Your task to perform on an android device: Show the shopping cart on target.com. Add usb-c to usb-a to the cart on target.com Image 0: 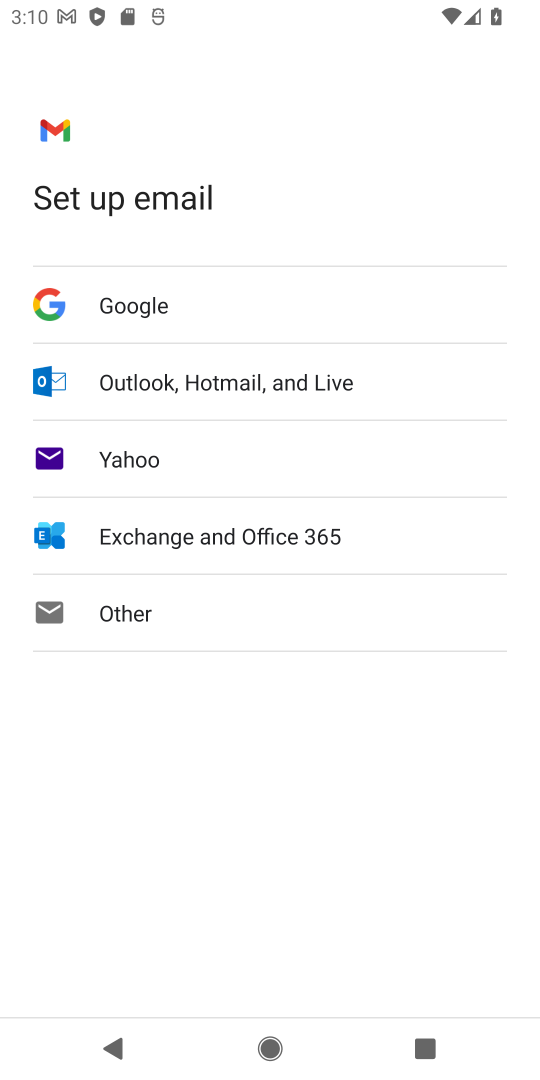
Step 0: press home button
Your task to perform on an android device: Show the shopping cart on target.com. Add usb-c to usb-a to the cart on target.com Image 1: 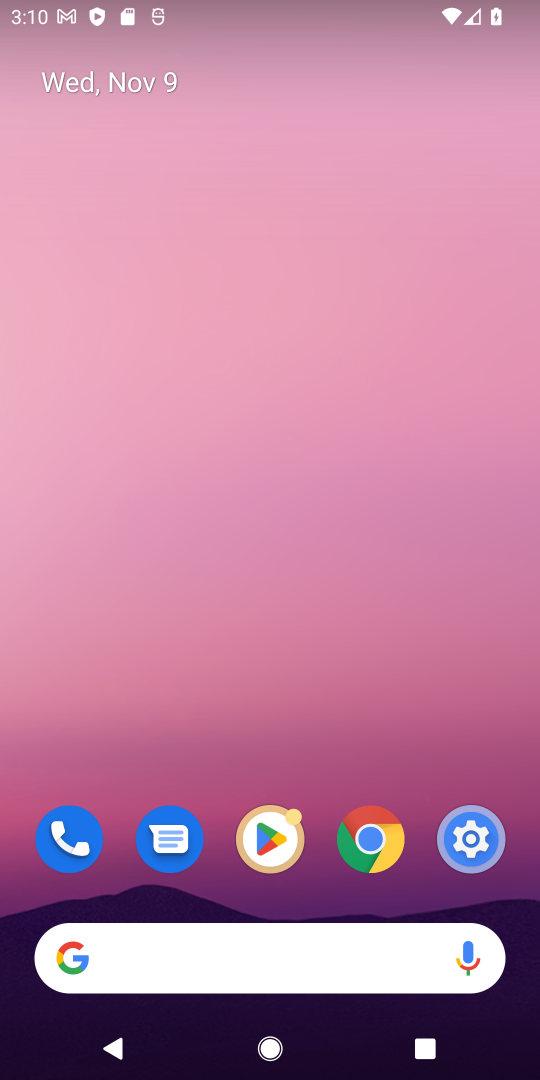
Step 1: click (323, 950)
Your task to perform on an android device: Show the shopping cart on target.com. Add usb-c to usb-a to the cart on target.com Image 2: 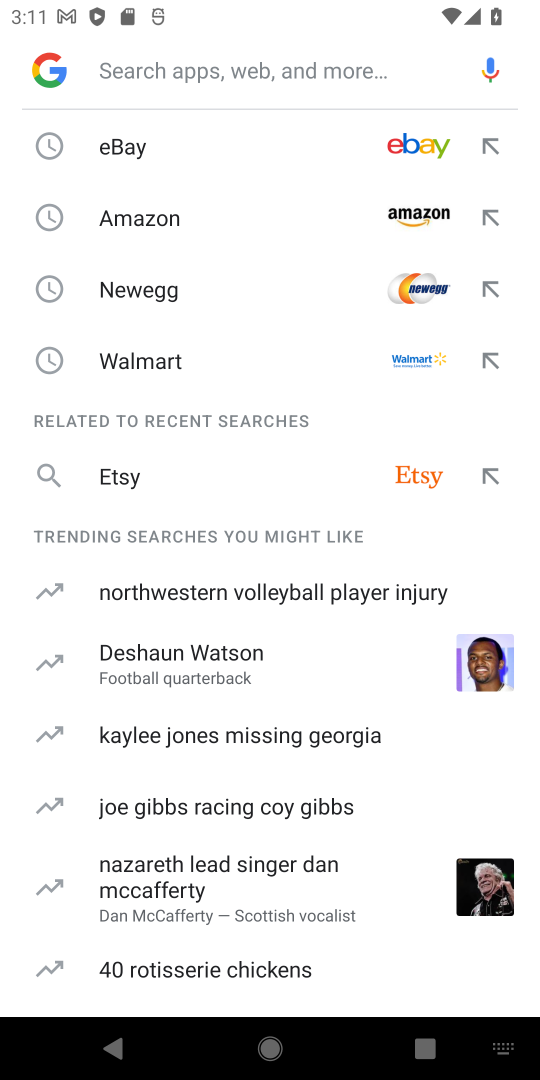
Step 2: type "target"
Your task to perform on an android device: Show the shopping cart on target.com. Add usb-c to usb-a to the cart on target.com Image 3: 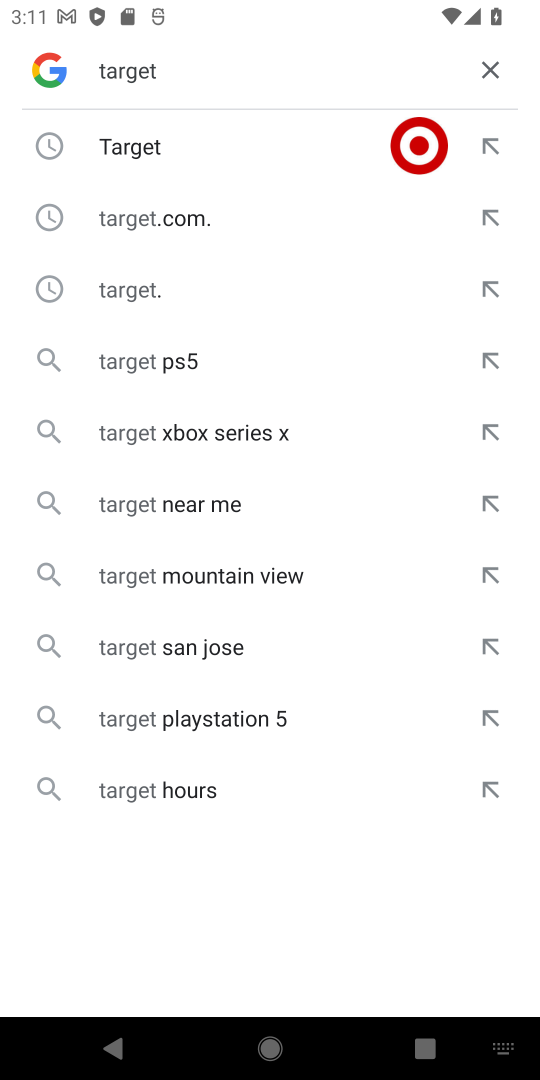
Step 3: click (214, 135)
Your task to perform on an android device: Show the shopping cart on target.com. Add usb-c to usb-a to the cart on target.com Image 4: 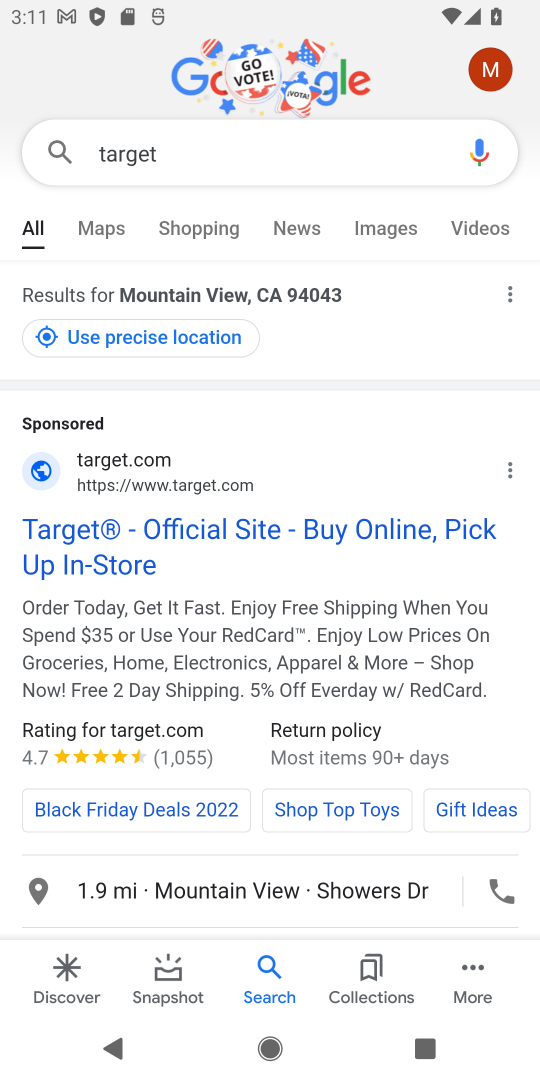
Step 4: click (142, 566)
Your task to perform on an android device: Show the shopping cart on target.com. Add usb-c to usb-a to the cart on target.com Image 5: 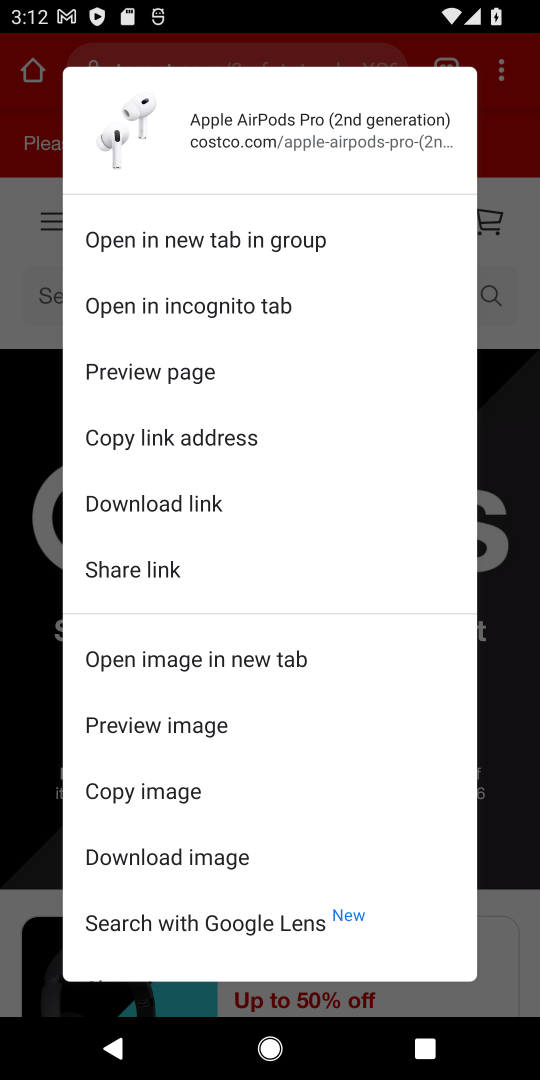
Step 5: task complete